Your task to perform on an android device: Open privacy settings Image 0: 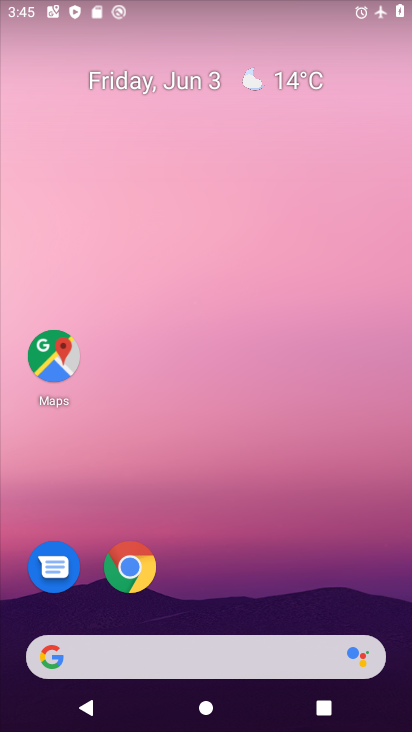
Step 0: click (180, 124)
Your task to perform on an android device: Open privacy settings Image 1: 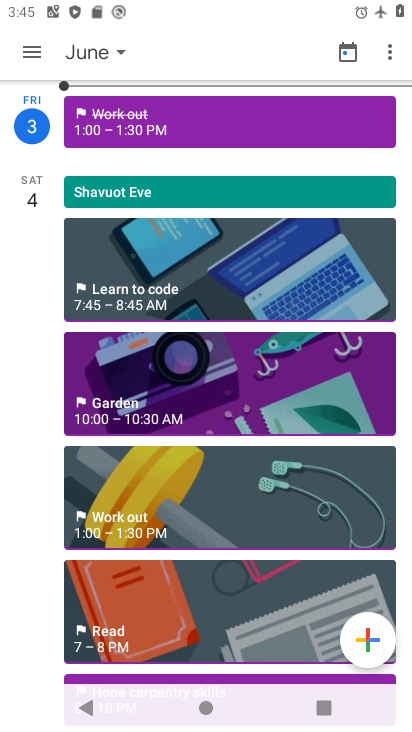
Step 1: press home button
Your task to perform on an android device: Open privacy settings Image 2: 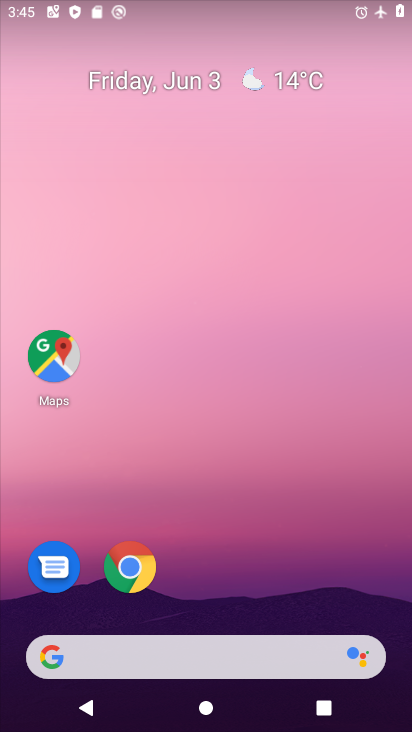
Step 2: drag from (275, 676) to (295, 161)
Your task to perform on an android device: Open privacy settings Image 3: 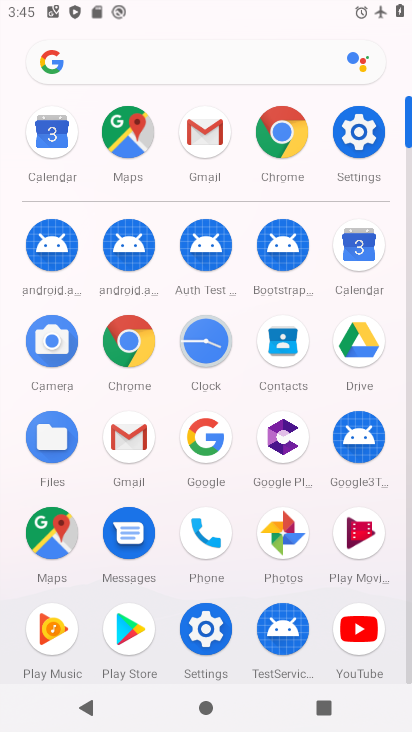
Step 3: click (371, 125)
Your task to perform on an android device: Open privacy settings Image 4: 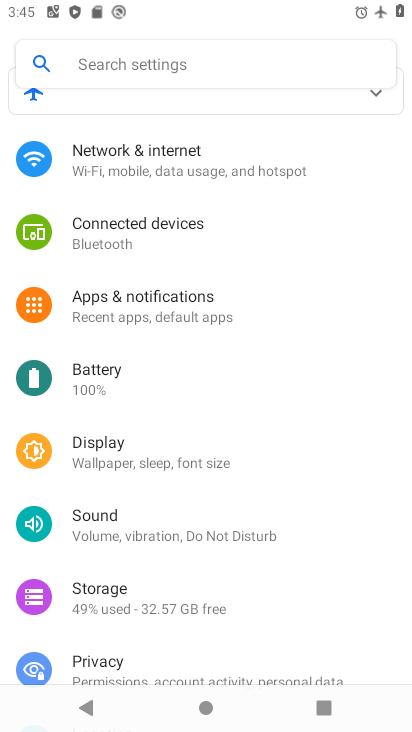
Step 4: click (150, 663)
Your task to perform on an android device: Open privacy settings Image 5: 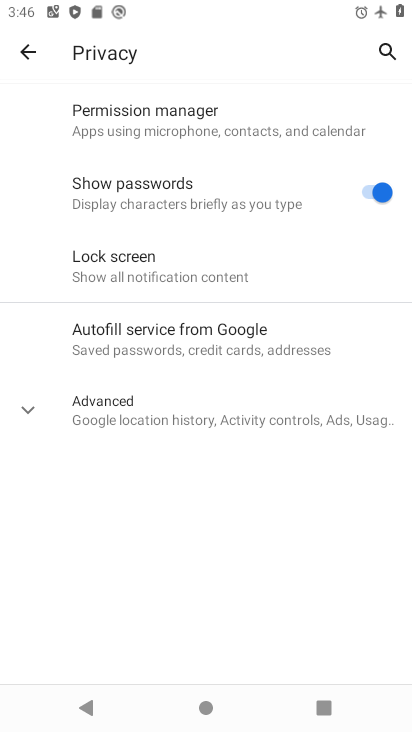
Step 5: task complete